Your task to perform on an android device: make emails show in primary in the gmail app Image 0: 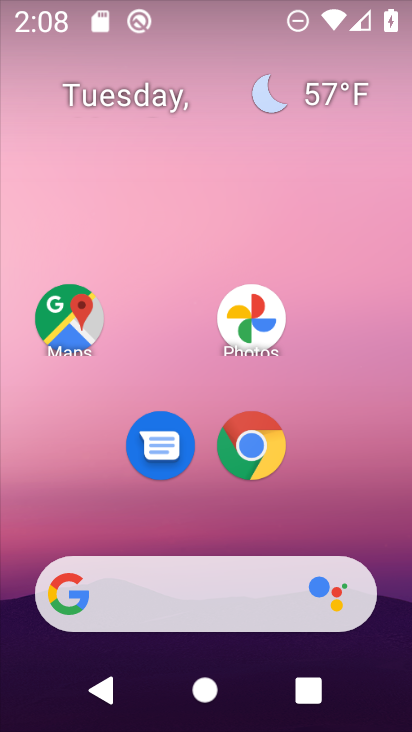
Step 0: drag from (395, 521) to (407, 265)
Your task to perform on an android device: make emails show in primary in the gmail app Image 1: 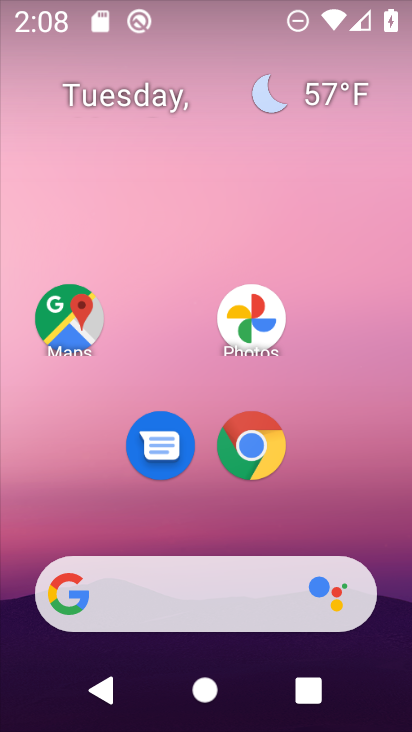
Step 1: drag from (386, 565) to (376, 196)
Your task to perform on an android device: make emails show in primary in the gmail app Image 2: 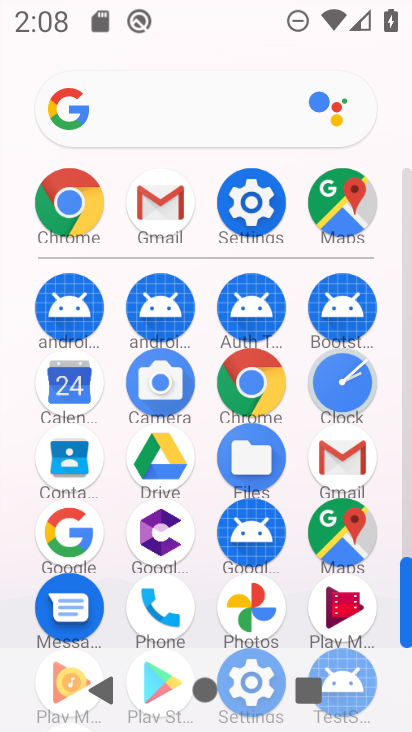
Step 2: click (345, 461)
Your task to perform on an android device: make emails show in primary in the gmail app Image 3: 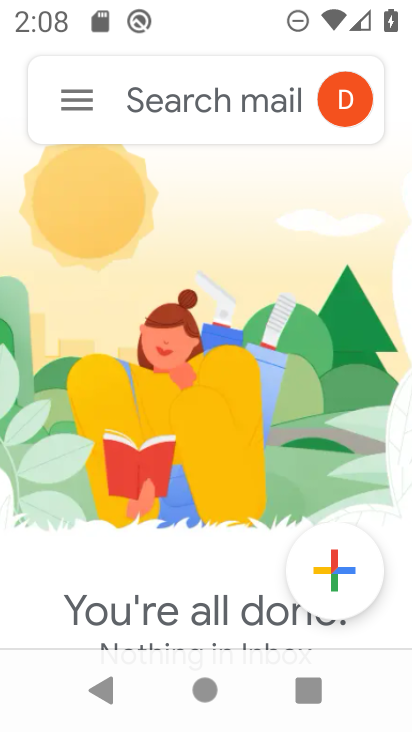
Step 3: click (67, 98)
Your task to perform on an android device: make emails show in primary in the gmail app Image 4: 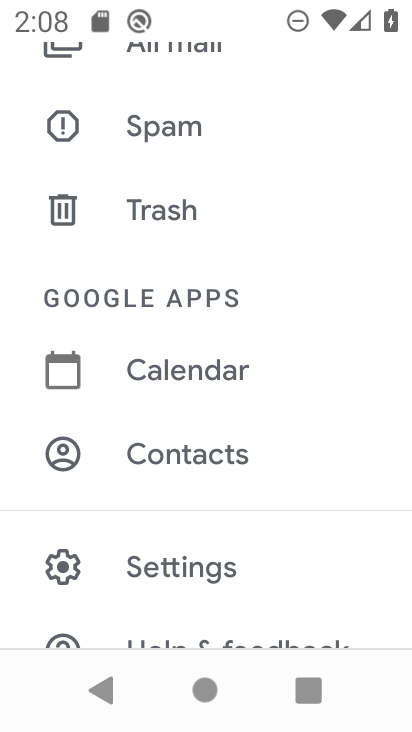
Step 4: drag from (293, 219) to (292, 333)
Your task to perform on an android device: make emails show in primary in the gmail app Image 5: 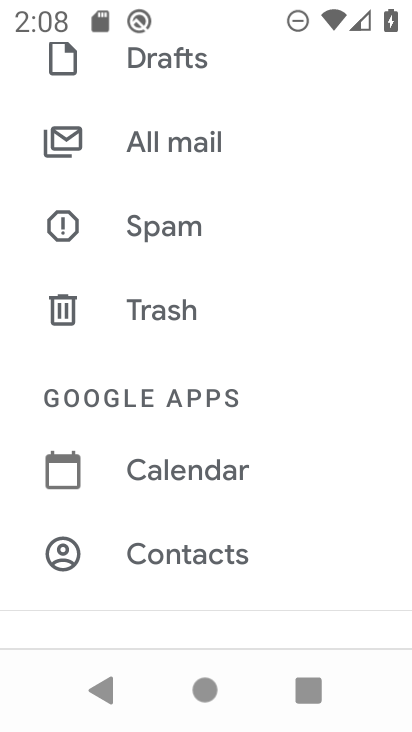
Step 5: drag from (314, 177) to (325, 283)
Your task to perform on an android device: make emails show in primary in the gmail app Image 6: 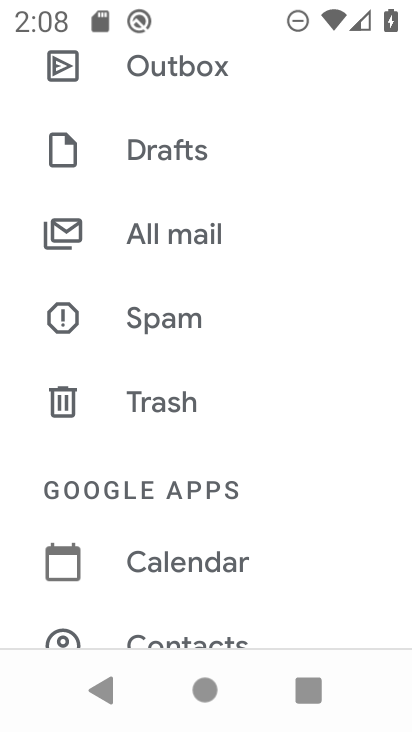
Step 6: drag from (343, 186) to (349, 289)
Your task to perform on an android device: make emails show in primary in the gmail app Image 7: 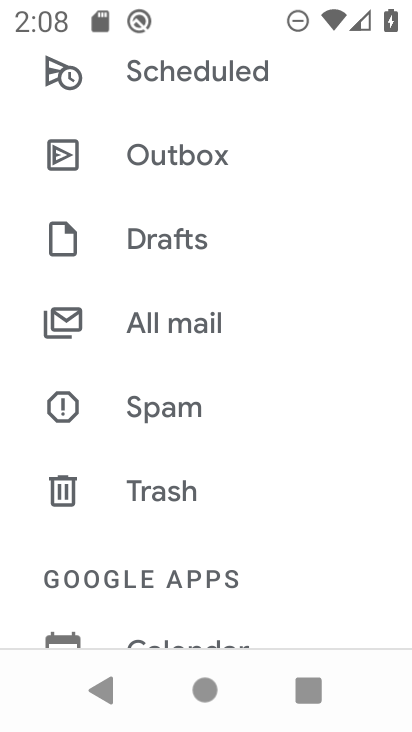
Step 7: drag from (351, 127) to (336, 254)
Your task to perform on an android device: make emails show in primary in the gmail app Image 8: 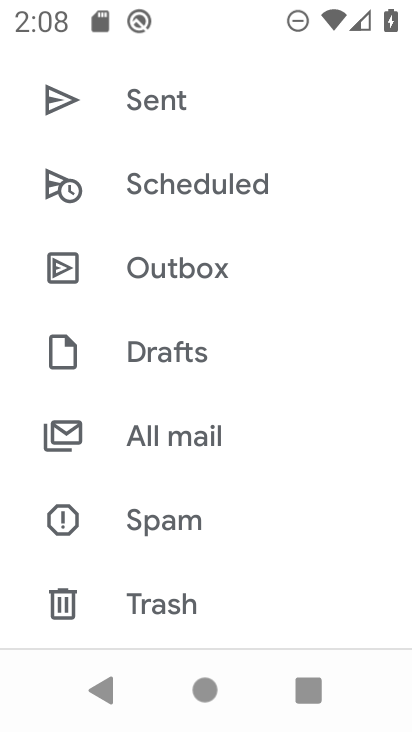
Step 8: drag from (331, 123) to (333, 249)
Your task to perform on an android device: make emails show in primary in the gmail app Image 9: 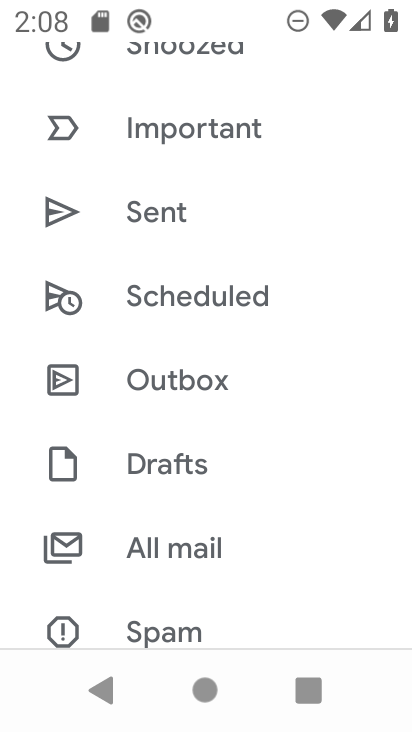
Step 9: drag from (338, 100) to (325, 267)
Your task to perform on an android device: make emails show in primary in the gmail app Image 10: 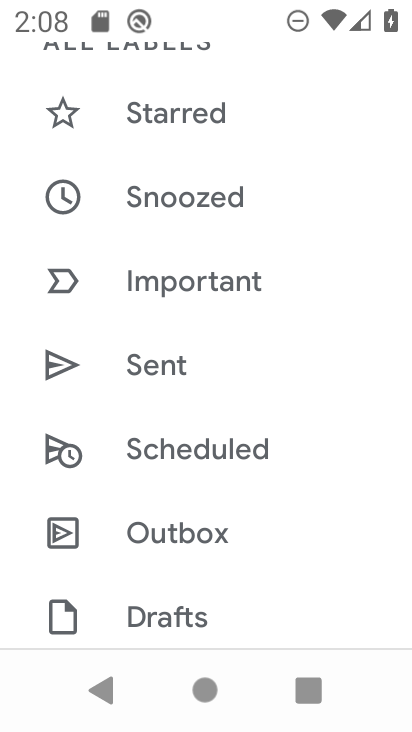
Step 10: drag from (331, 226) to (328, 380)
Your task to perform on an android device: make emails show in primary in the gmail app Image 11: 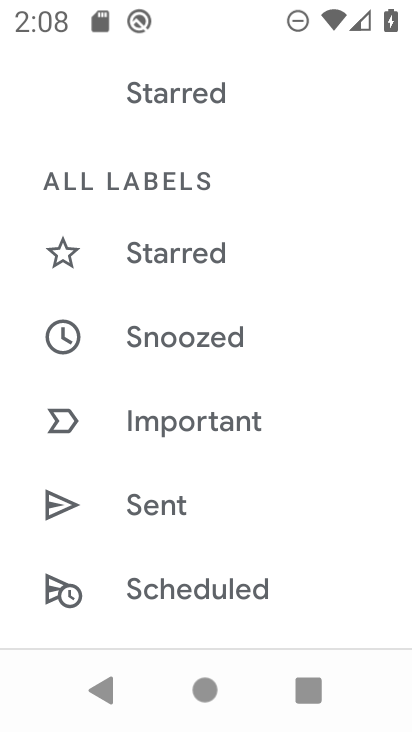
Step 11: drag from (321, 542) to (345, 415)
Your task to perform on an android device: make emails show in primary in the gmail app Image 12: 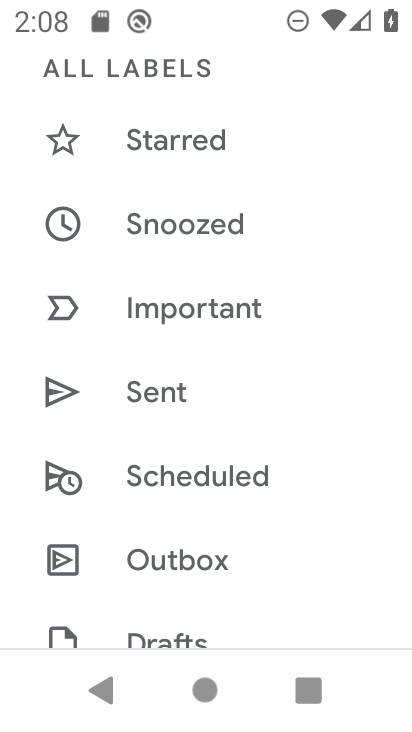
Step 12: drag from (358, 540) to (352, 375)
Your task to perform on an android device: make emails show in primary in the gmail app Image 13: 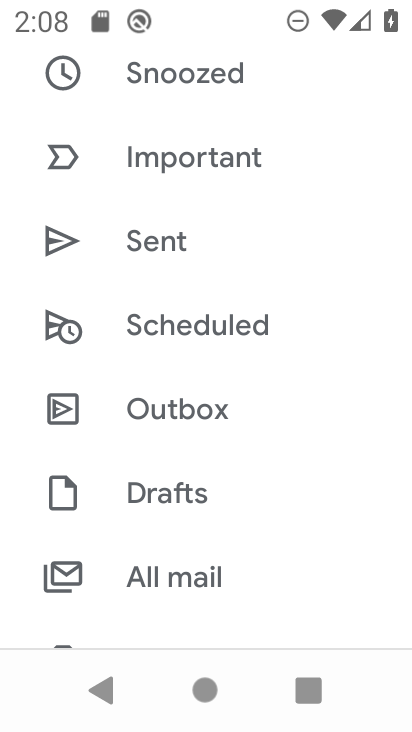
Step 13: drag from (329, 439) to (324, 308)
Your task to perform on an android device: make emails show in primary in the gmail app Image 14: 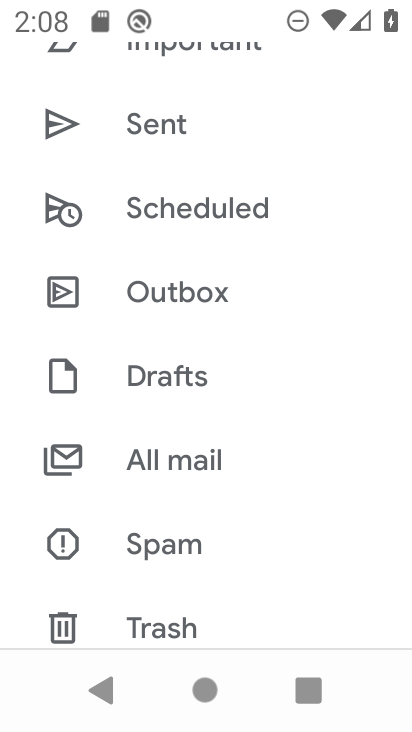
Step 14: drag from (318, 533) to (301, 356)
Your task to perform on an android device: make emails show in primary in the gmail app Image 15: 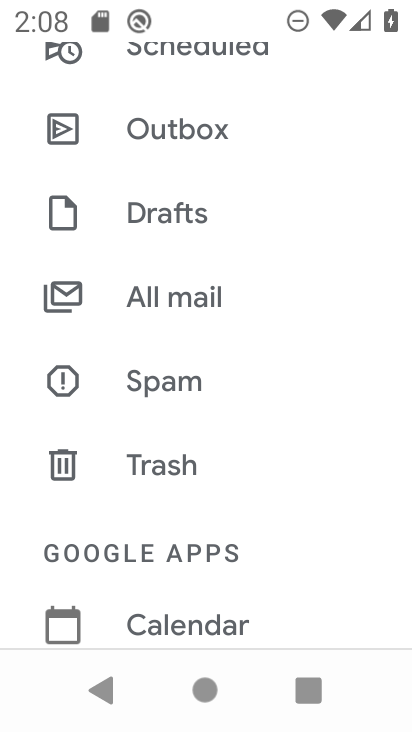
Step 15: drag from (325, 500) to (333, 352)
Your task to perform on an android device: make emails show in primary in the gmail app Image 16: 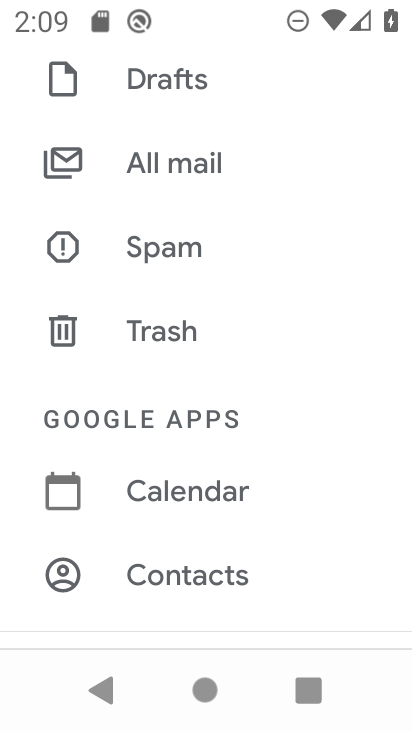
Step 16: drag from (352, 496) to (368, 334)
Your task to perform on an android device: make emails show in primary in the gmail app Image 17: 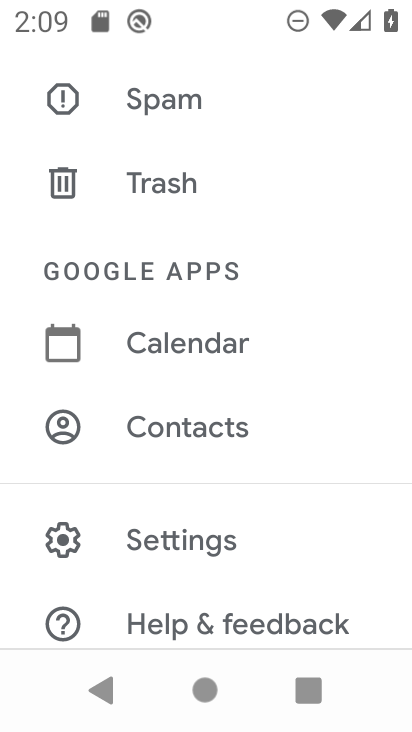
Step 17: drag from (356, 525) to (370, 359)
Your task to perform on an android device: make emails show in primary in the gmail app Image 18: 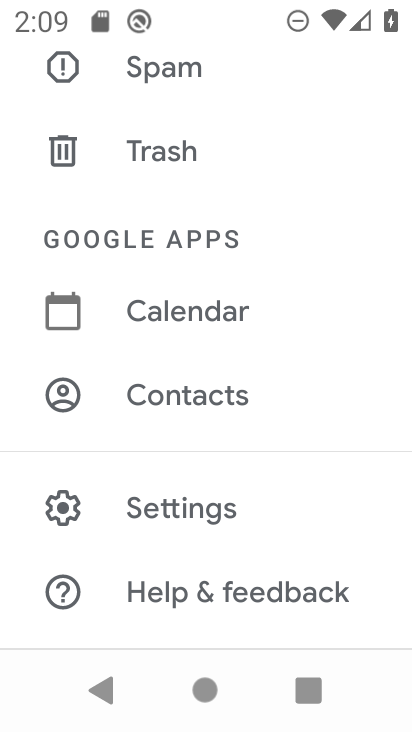
Step 18: click (303, 498)
Your task to perform on an android device: make emails show in primary in the gmail app Image 19: 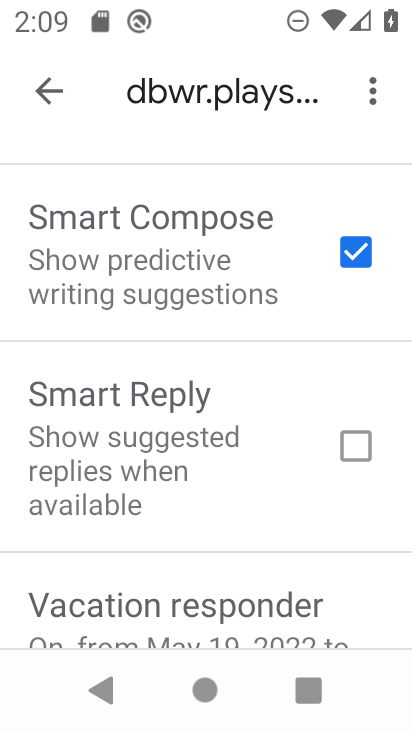
Step 19: drag from (281, 305) to (292, 415)
Your task to perform on an android device: make emails show in primary in the gmail app Image 20: 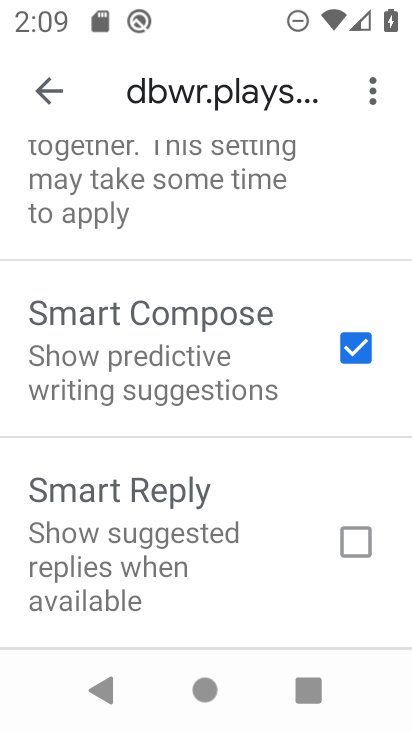
Step 20: drag from (292, 294) to (290, 399)
Your task to perform on an android device: make emails show in primary in the gmail app Image 21: 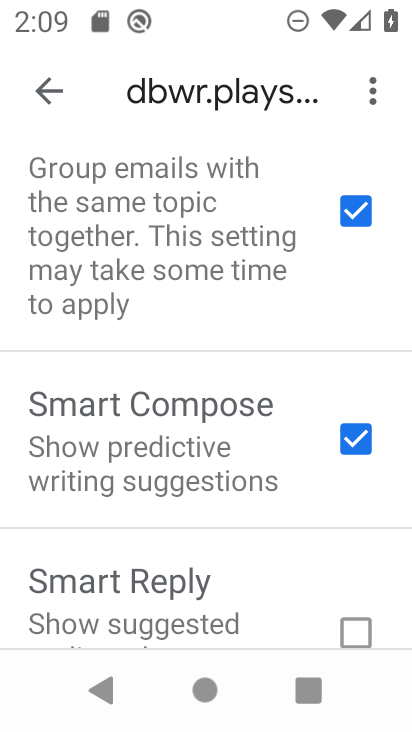
Step 21: drag from (270, 211) to (273, 365)
Your task to perform on an android device: make emails show in primary in the gmail app Image 22: 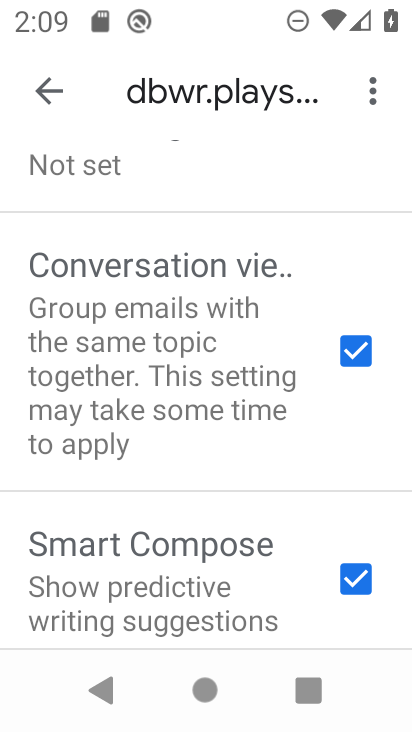
Step 22: drag from (272, 156) to (268, 364)
Your task to perform on an android device: make emails show in primary in the gmail app Image 23: 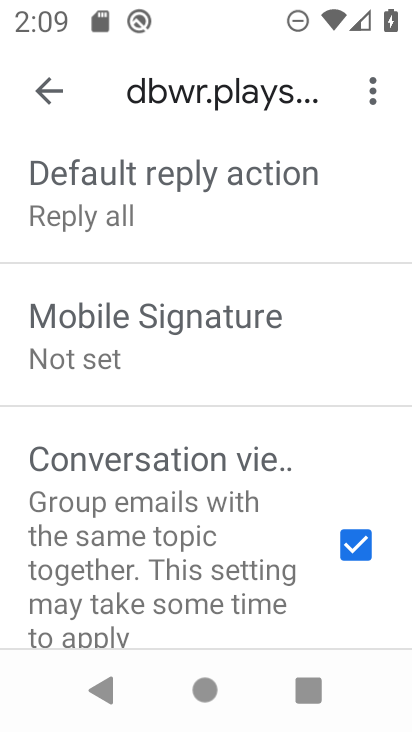
Step 23: drag from (256, 196) to (259, 344)
Your task to perform on an android device: make emails show in primary in the gmail app Image 24: 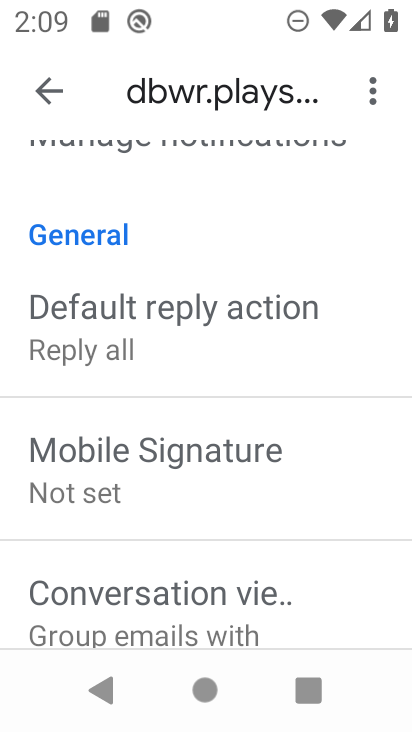
Step 24: drag from (265, 163) to (255, 328)
Your task to perform on an android device: make emails show in primary in the gmail app Image 25: 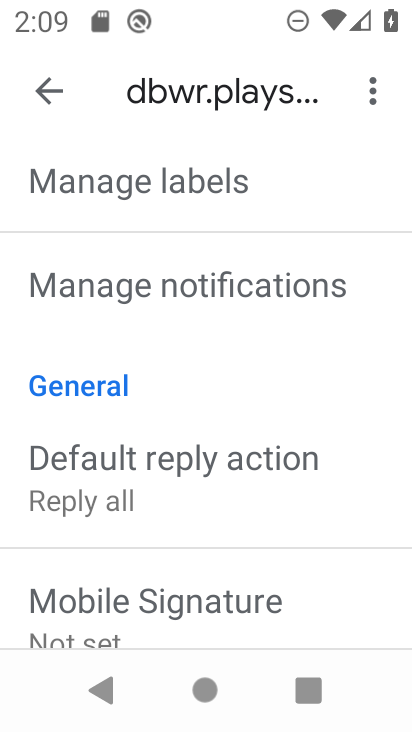
Step 25: drag from (261, 188) to (263, 309)
Your task to perform on an android device: make emails show in primary in the gmail app Image 26: 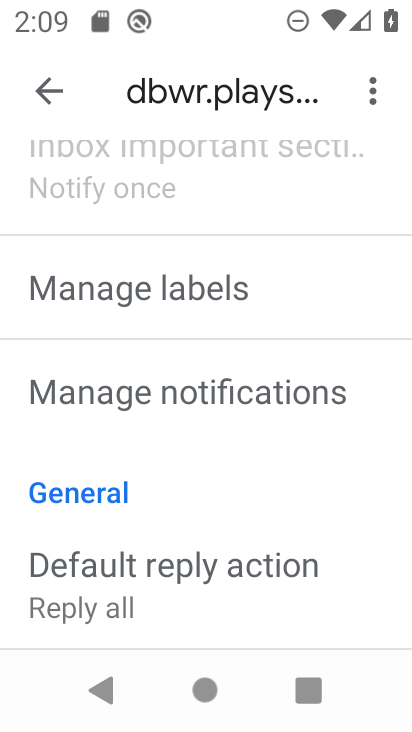
Step 26: drag from (265, 190) to (272, 296)
Your task to perform on an android device: make emails show in primary in the gmail app Image 27: 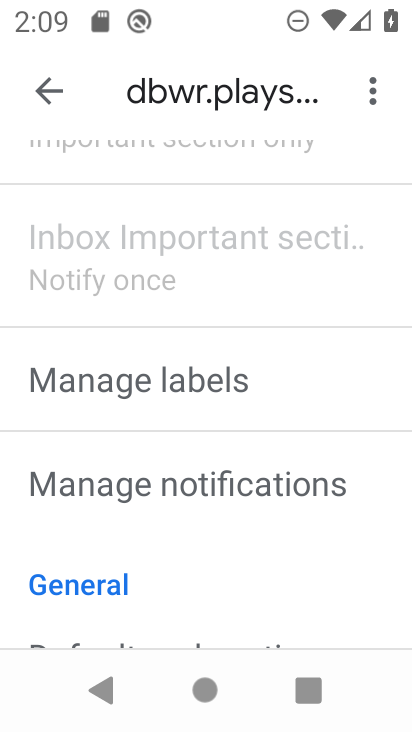
Step 27: drag from (283, 207) to (279, 329)
Your task to perform on an android device: make emails show in primary in the gmail app Image 28: 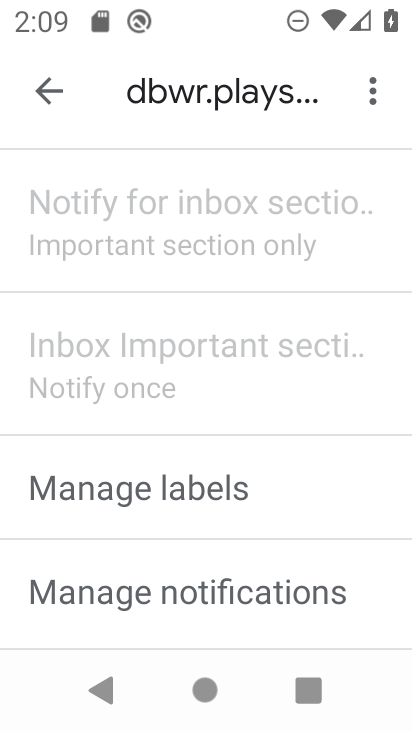
Step 28: drag from (263, 147) to (267, 289)
Your task to perform on an android device: make emails show in primary in the gmail app Image 29: 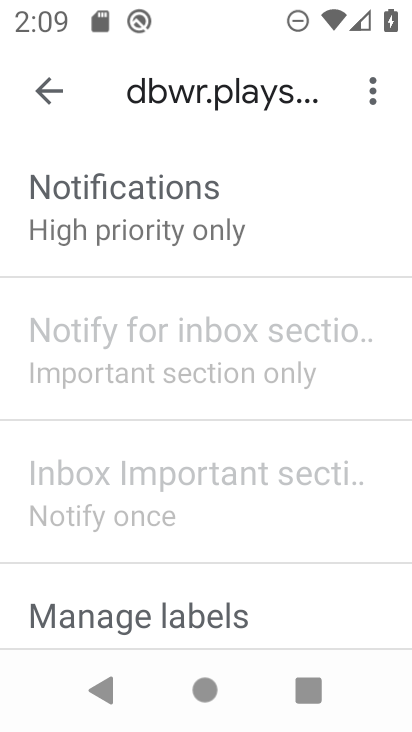
Step 29: drag from (264, 160) to (263, 289)
Your task to perform on an android device: make emails show in primary in the gmail app Image 30: 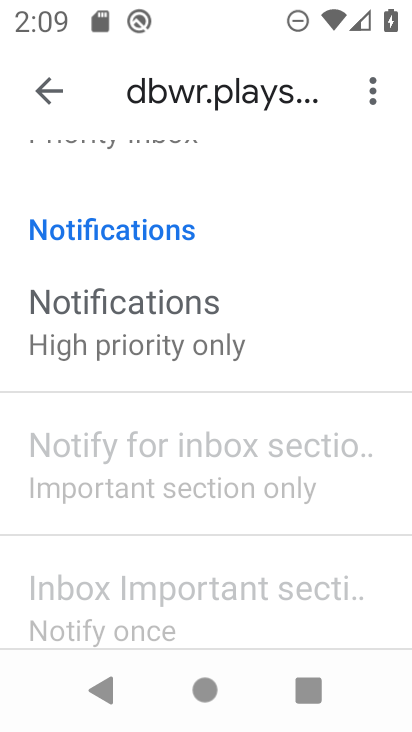
Step 30: drag from (254, 174) to (257, 293)
Your task to perform on an android device: make emails show in primary in the gmail app Image 31: 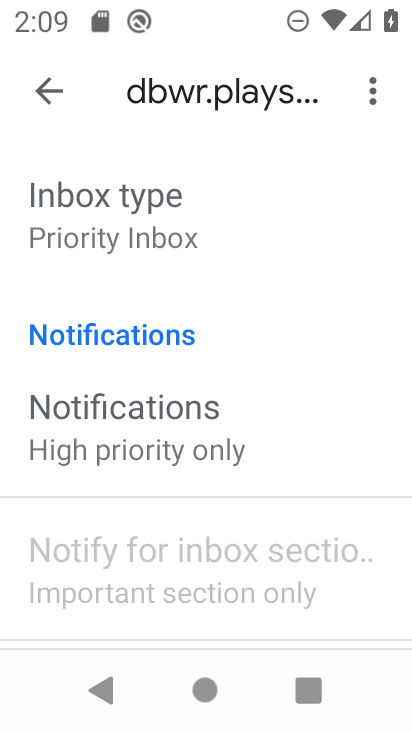
Step 31: click (160, 241)
Your task to perform on an android device: make emails show in primary in the gmail app Image 32: 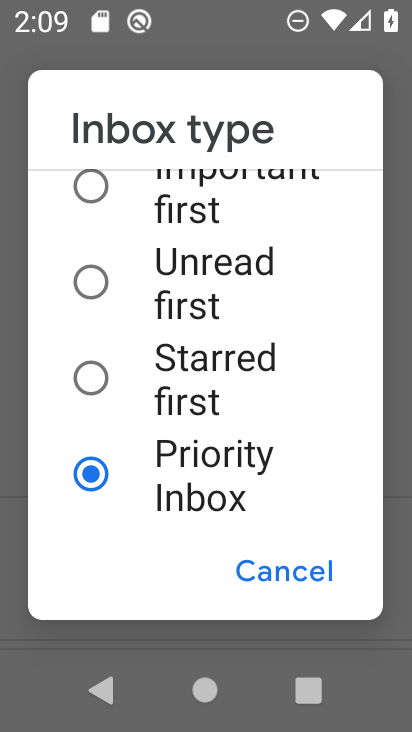
Step 32: drag from (320, 214) to (309, 348)
Your task to perform on an android device: make emails show in primary in the gmail app Image 33: 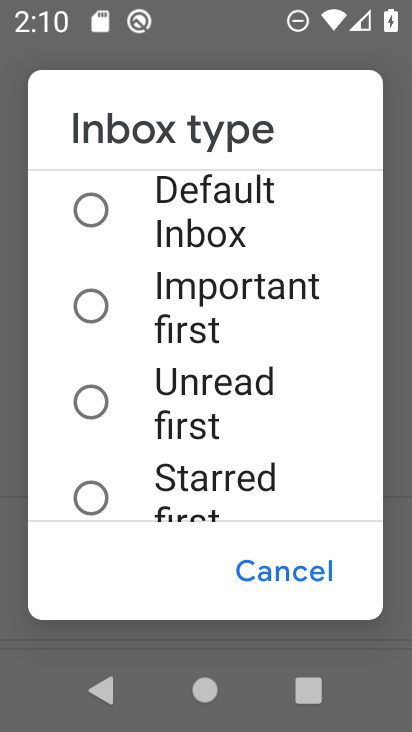
Step 33: click (174, 207)
Your task to perform on an android device: make emails show in primary in the gmail app Image 34: 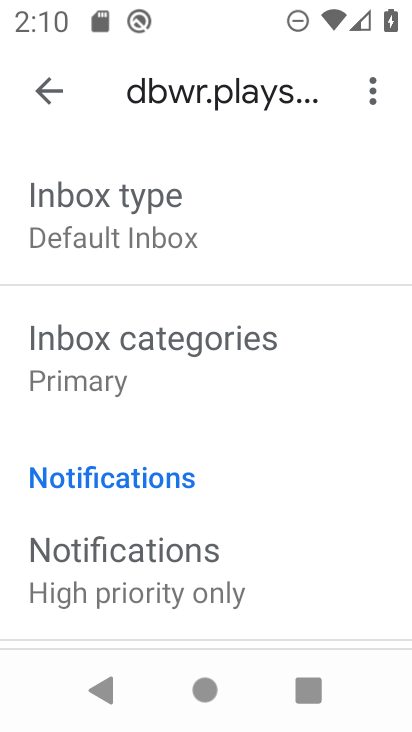
Step 34: click (188, 383)
Your task to perform on an android device: make emails show in primary in the gmail app Image 35: 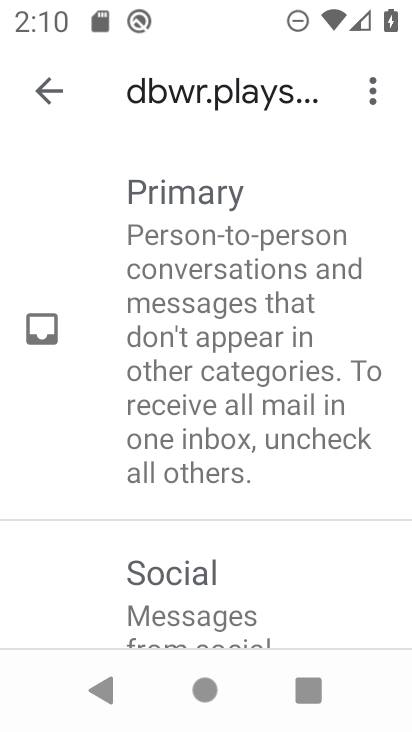
Step 35: task complete